Your task to perform on an android device: Open battery settings Image 0: 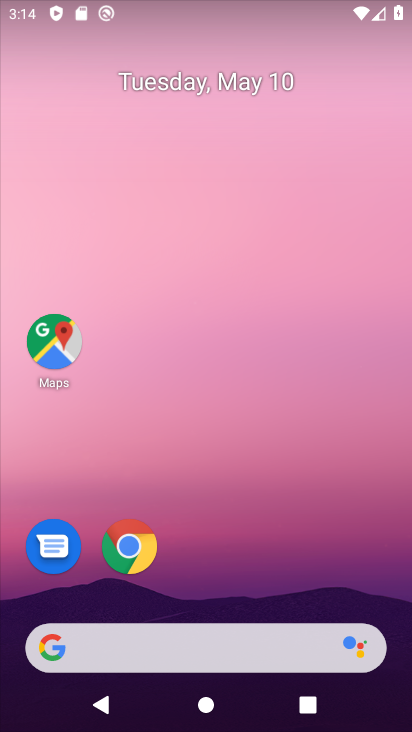
Step 0: drag from (223, 605) to (277, 18)
Your task to perform on an android device: Open battery settings Image 1: 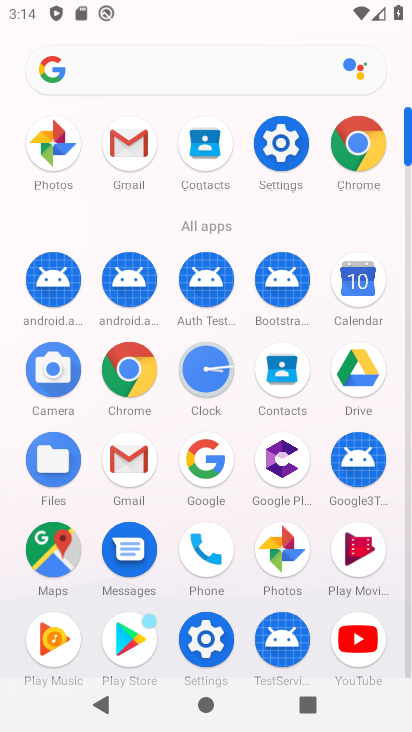
Step 1: click (288, 159)
Your task to perform on an android device: Open battery settings Image 2: 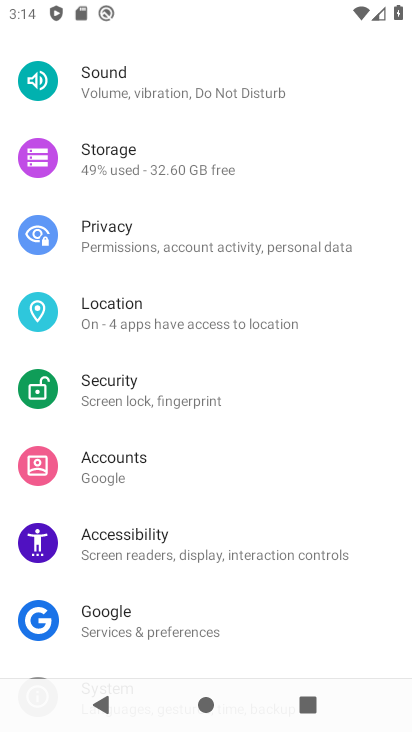
Step 2: drag from (226, 306) to (285, 598)
Your task to perform on an android device: Open battery settings Image 3: 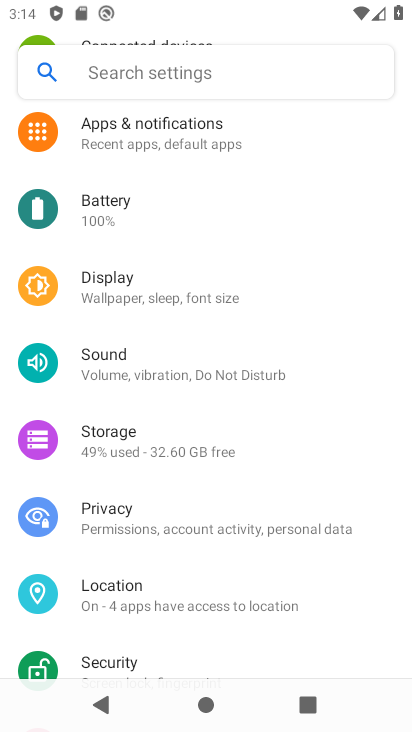
Step 3: click (129, 212)
Your task to perform on an android device: Open battery settings Image 4: 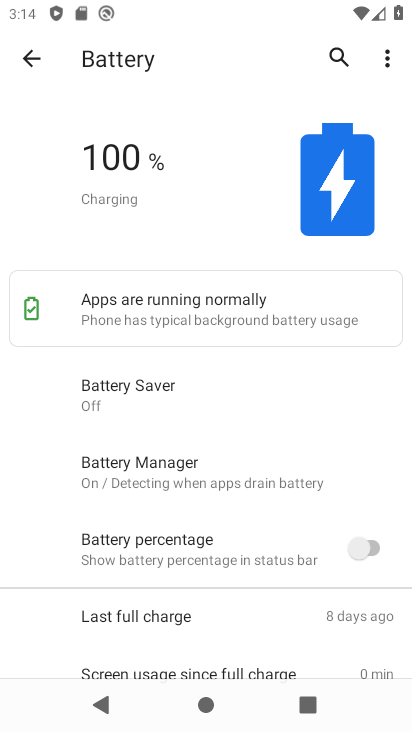
Step 4: task complete